Your task to perform on an android device: turn off notifications settings in the gmail app Image 0: 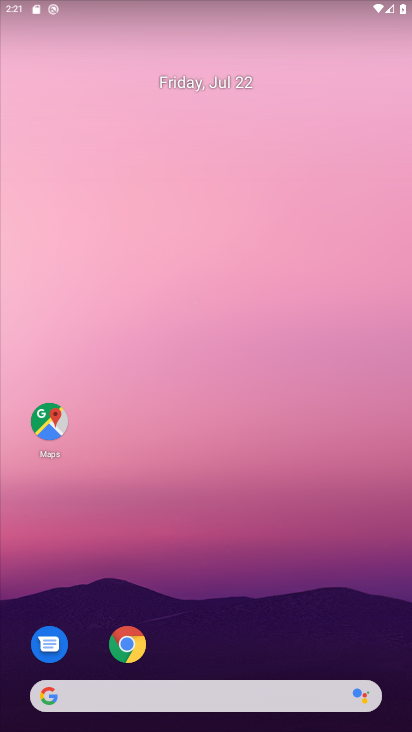
Step 0: drag from (227, 531) to (244, 233)
Your task to perform on an android device: turn off notifications settings in the gmail app Image 1: 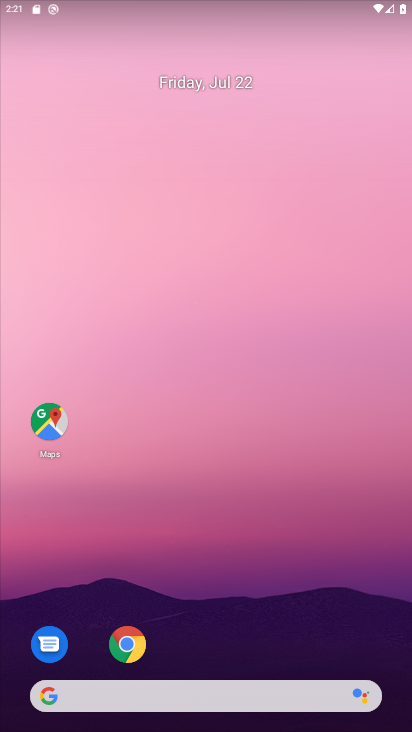
Step 1: drag from (252, 615) to (281, 312)
Your task to perform on an android device: turn off notifications settings in the gmail app Image 2: 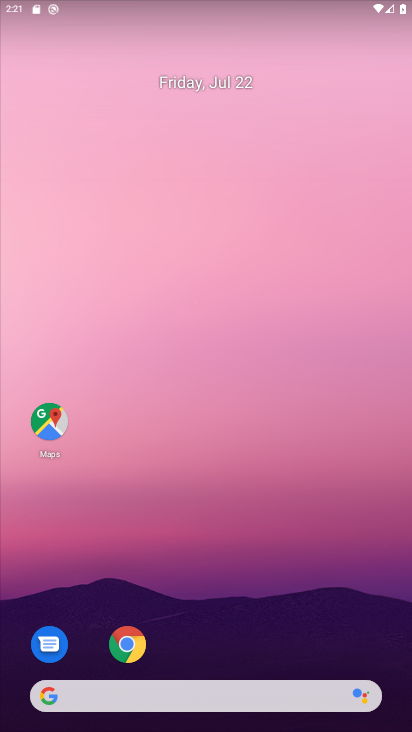
Step 2: drag from (327, 592) to (345, 132)
Your task to perform on an android device: turn off notifications settings in the gmail app Image 3: 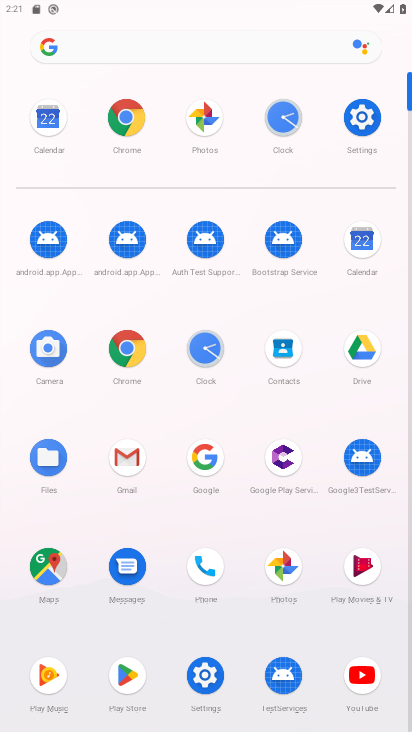
Step 3: click (366, 114)
Your task to perform on an android device: turn off notifications settings in the gmail app Image 4: 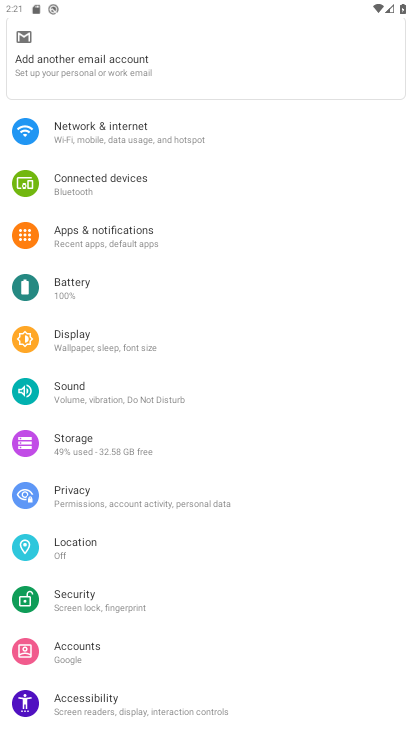
Step 4: press back button
Your task to perform on an android device: turn off notifications settings in the gmail app Image 5: 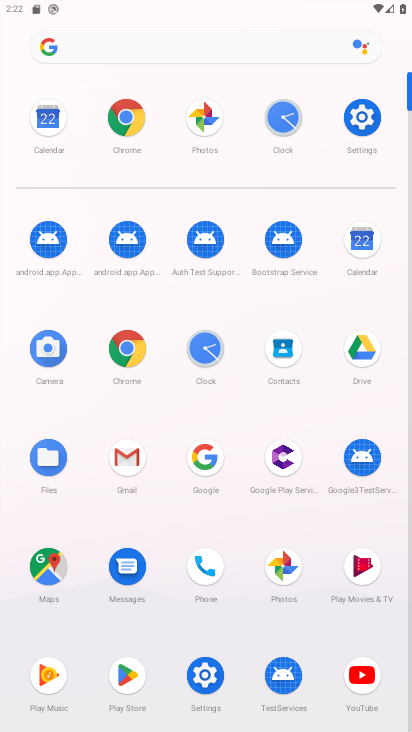
Step 5: click (128, 446)
Your task to perform on an android device: turn off notifications settings in the gmail app Image 6: 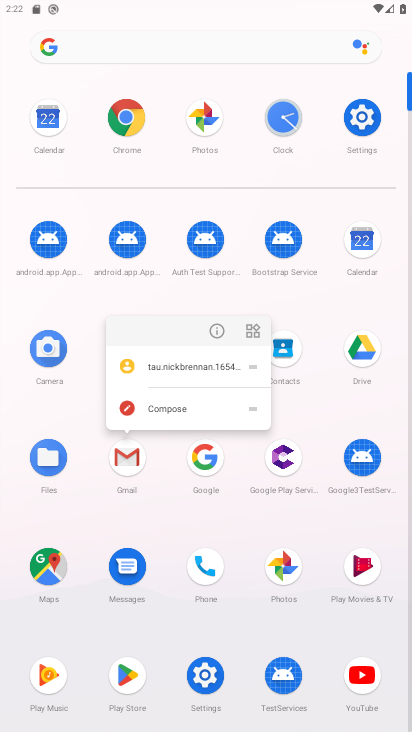
Step 6: click (128, 455)
Your task to perform on an android device: turn off notifications settings in the gmail app Image 7: 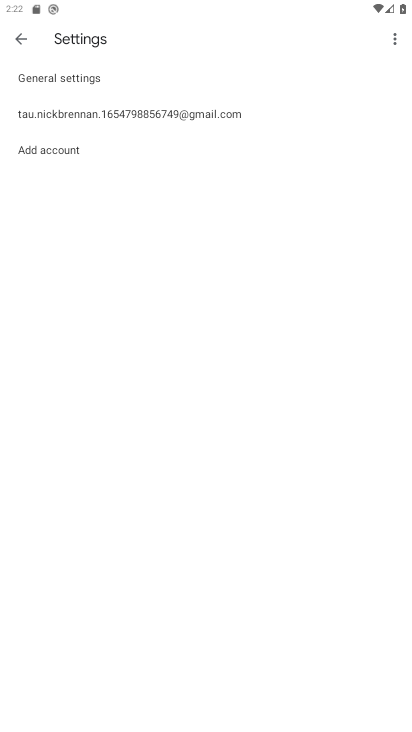
Step 7: click (63, 97)
Your task to perform on an android device: turn off notifications settings in the gmail app Image 8: 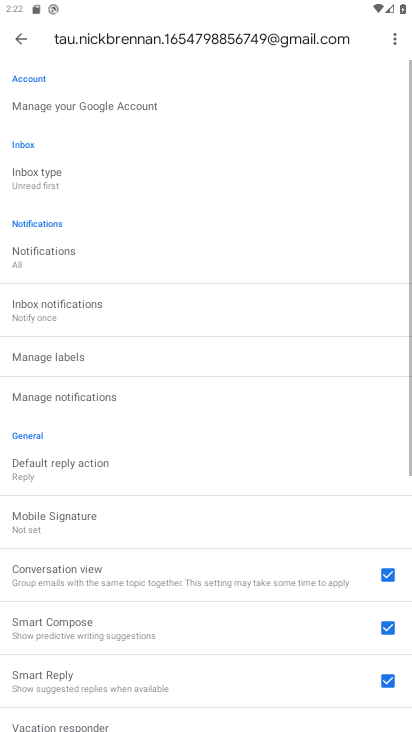
Step 8: drag from (66, 317) to (82, 251)
Your task to perform on an android device: turn off notifications settings in the gmail app Image 9: 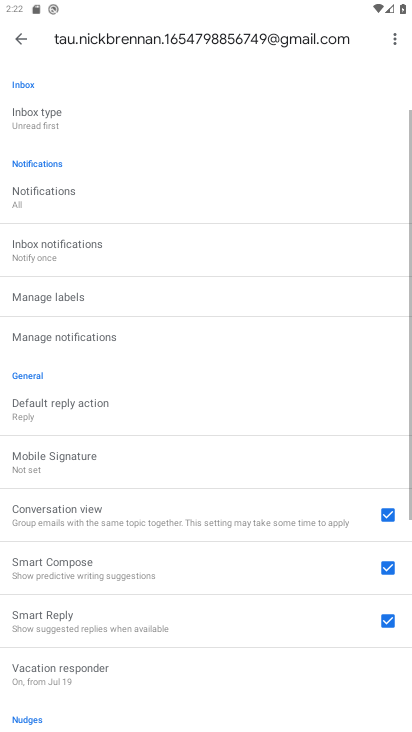
Step 9: click (82, 251)
Your task to perform on an android device: turn off notifications settings in the gmail app Image 10: 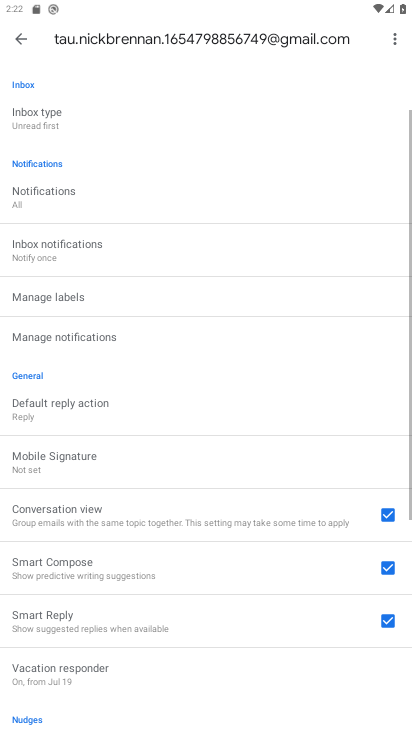
Step 10: click (76, 189)
Your task to perform on an android device: turn off notifications settings in the gmail app Image 11: 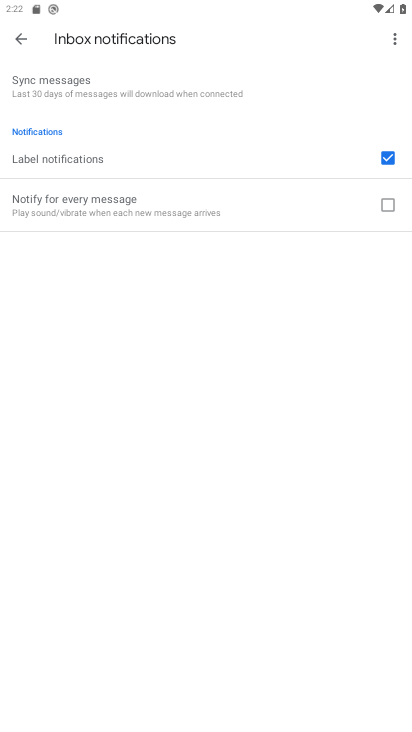
Step 11: click (20, 34)
Your task to perform on an android device: turn off notifications settings in the gmail app Image 12: 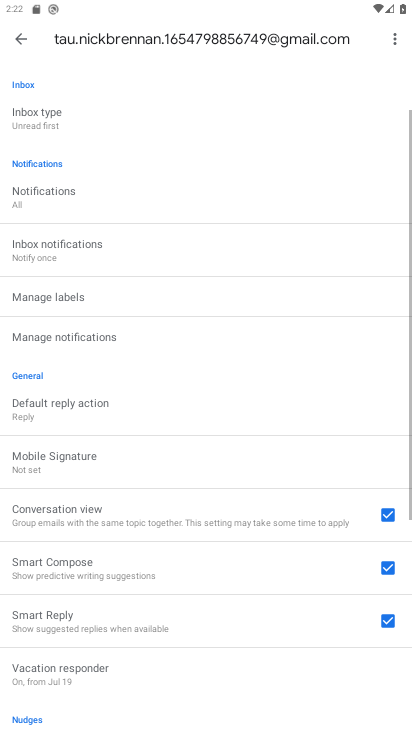
Step 12: click (59, 208)
Your task to perform on an android device: turn off notifications settings in the gmail app Image 13: 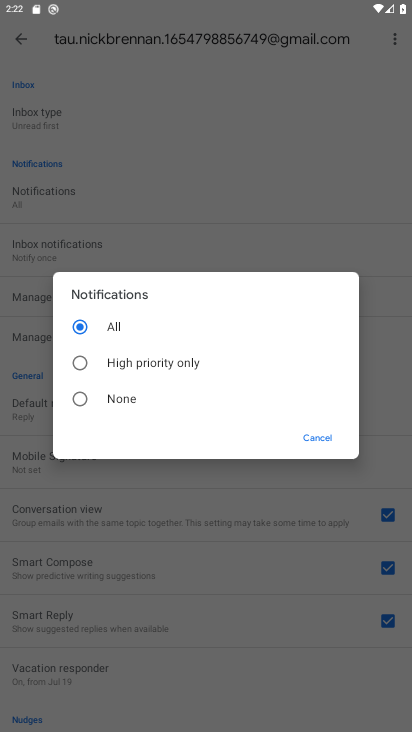
Step 13: click (115, 396)
Your task to perform on an android device: turn off notifications settings in the gmail app Image 14: 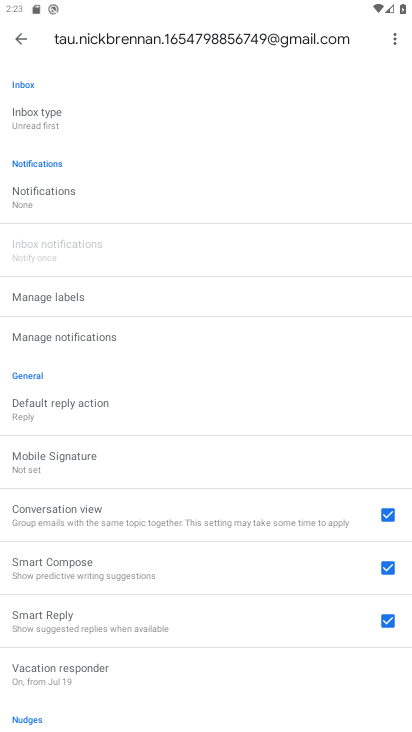
Step 14: task complete